Your task to perform on an android device: What's on my calendar tomorrow? Image 0: 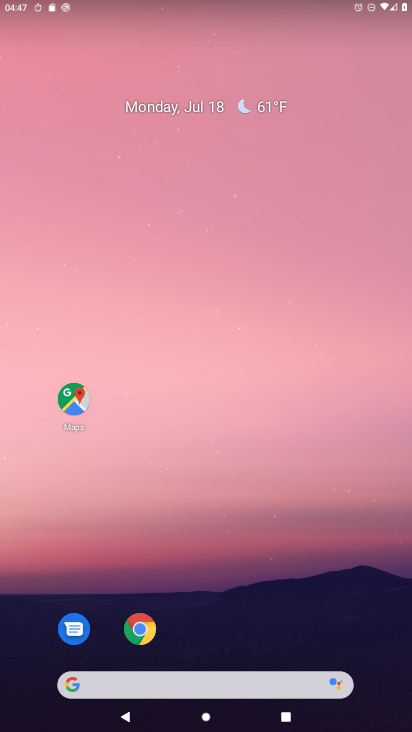
Step 0: drag from (218, 685) to (248, 220)
Your task to perform on an android device: What's on my calendar tomorrow? Image 1: 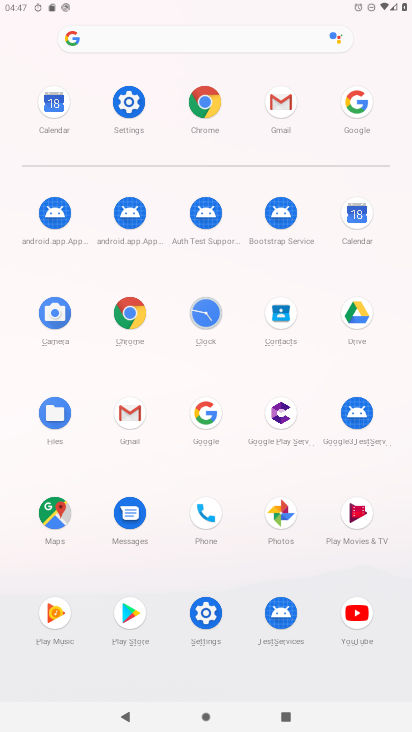
Step 1: click (358, 214)
Your task to perform on an android device: What's on my calendar tomorrow? Image 2: 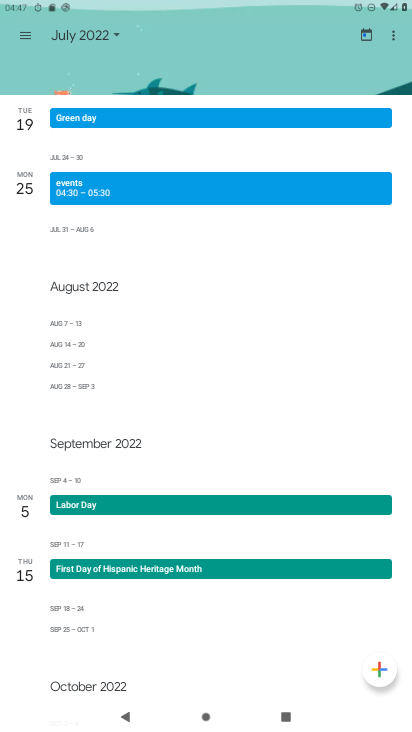
Step 2: click (367, 35)
Your task to perform on an android device: What's on my calendar tomorrow? Image 3: 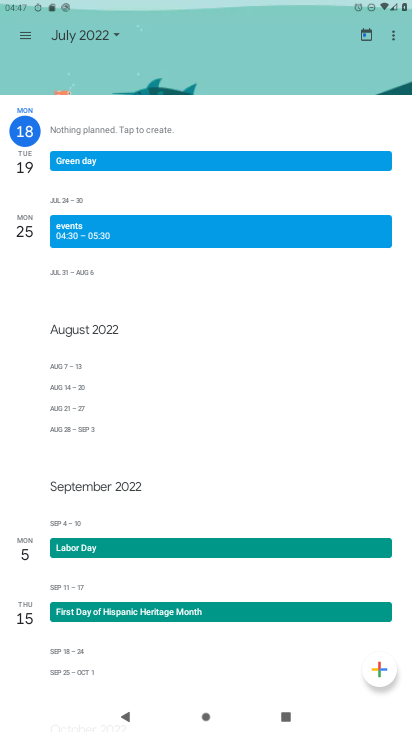
Step 3: click (28, 34)
Your task to perform on an android device: What's on my calendar tomorrow? Image 4: 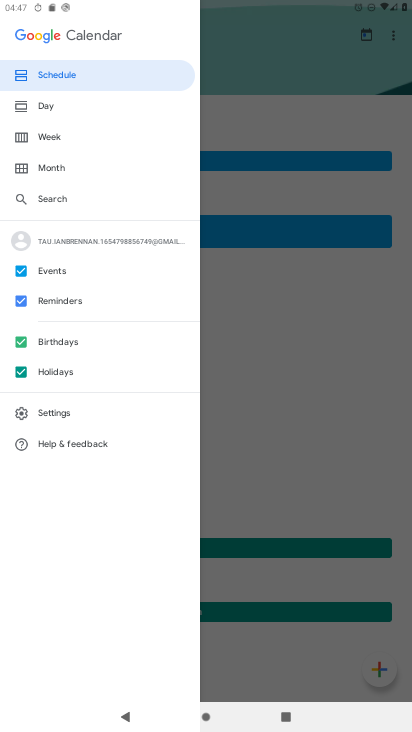
Step 4: click (262, 63)
Your task to perform on an android device: What's on my calendar tomorrow? Image 5: 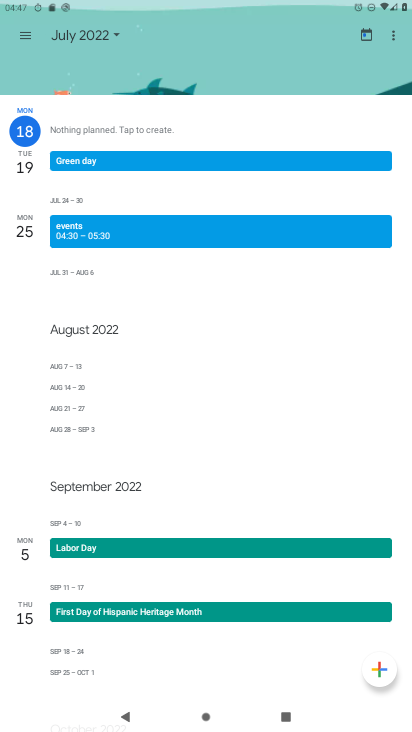
Step 5: click (107, 32)
Your task to perform on an android device: What's on my calendar tomorrow? Image 6: 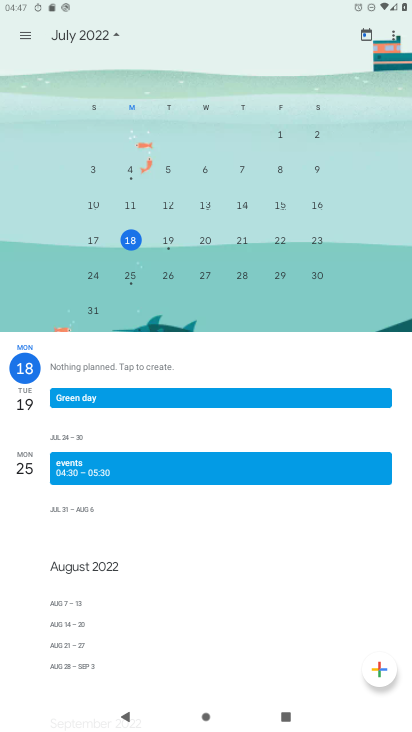
Step 6: click (163, 236)
Your task to perform on an android device: What's on my calendar tomorrow? Image 7: 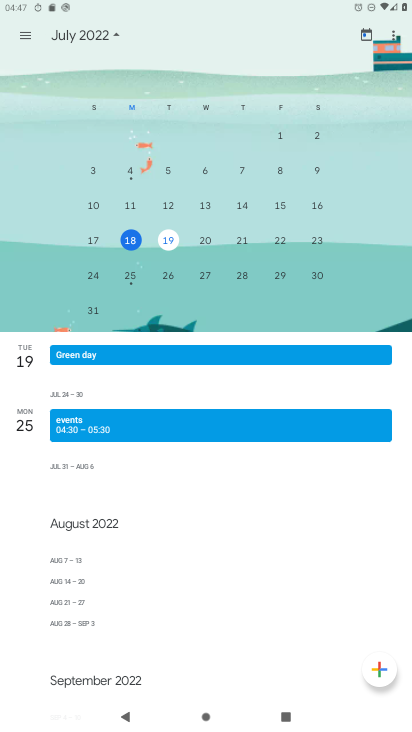
Step 7: click (23, 36)
Your task to perform on an android device: What's on my calendar tomorrow? Image 8: 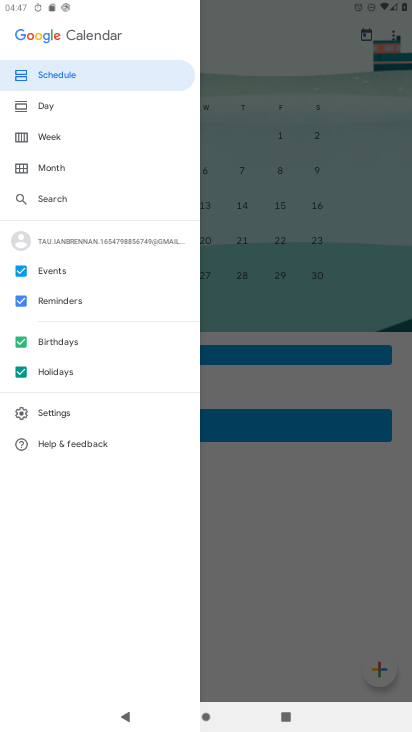
Step 8: click (47, 72)
Your task to perform on an android device: What's on my calendar tomorrow? Image 9: 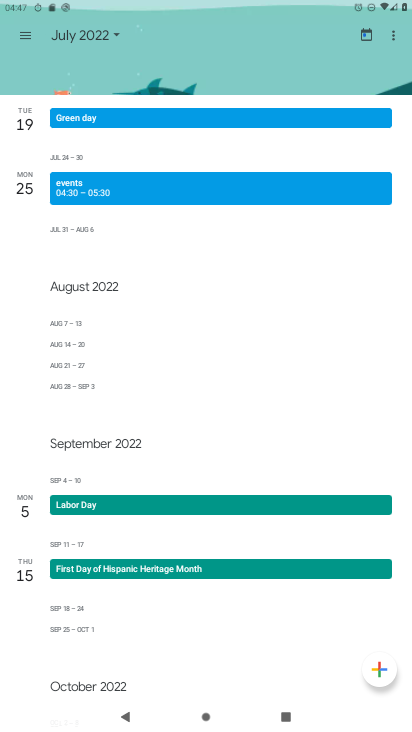
Step 9: task complete